Your task to perform on an android device: visit the assistant section in the google photos Image 0: 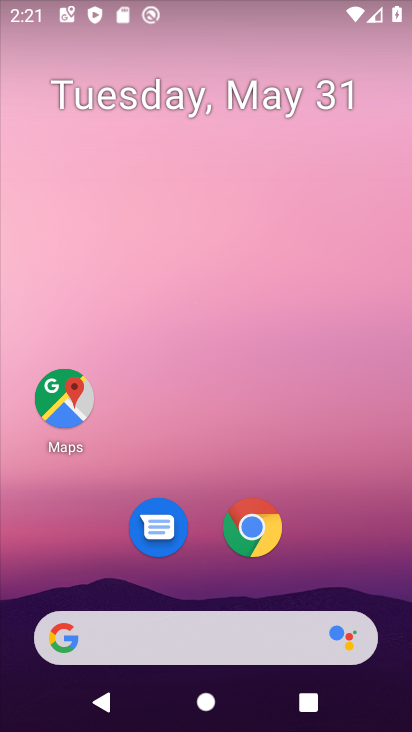
Step 0: drag from (397, 423) to (376, 12)
Your task to perform on an android device: visit the assistant section in the google photos Image 1: 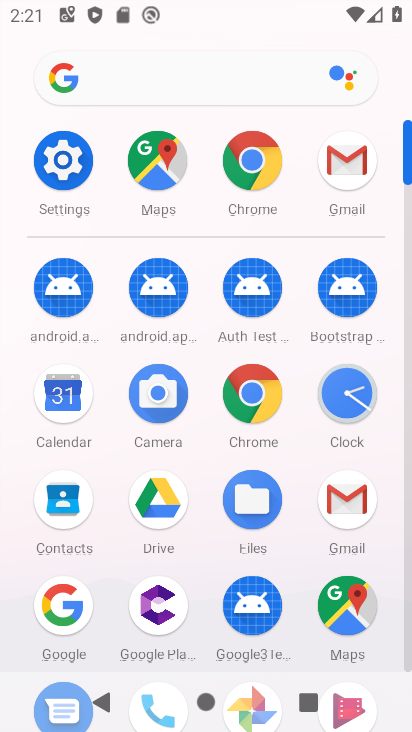
Step 1: drag from (389, 597) to (407, 348)
Your task to perform on an android device: visit the assistant section in the google photos Image 2: 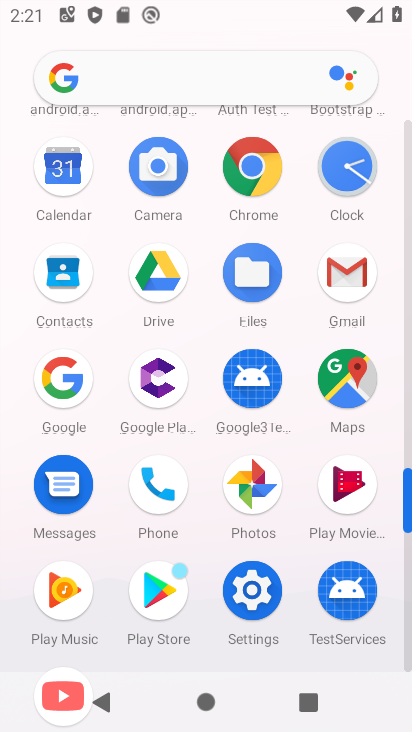
Step 2: drag from (389, 612) to (410, 262)
Your task to perform on an android device: visit the assistant section in the google photos Image 3: 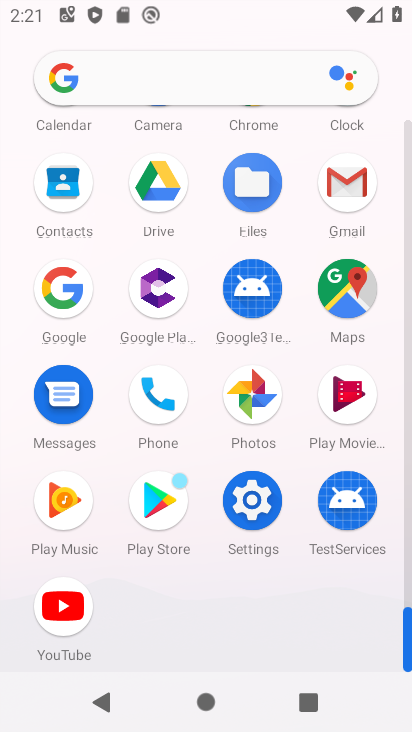
Step 3: click (256, 385)
Your task to perform on an android device: visit the assistant section in the google photos Image 4: 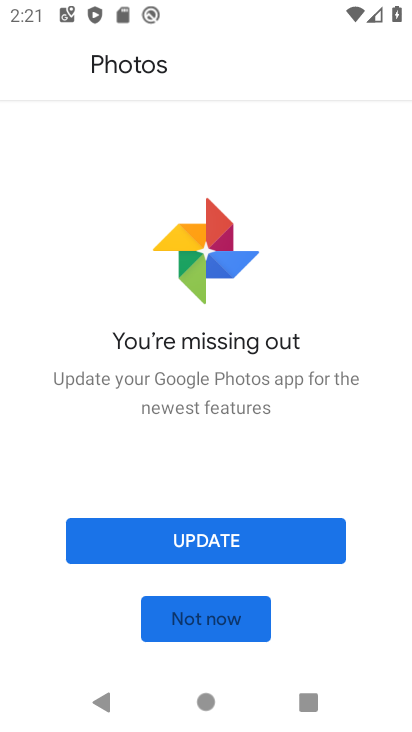
Step 4: click (241, 554)
Your task to perform on an android device: visit the assistant section in the google photos Image 5: 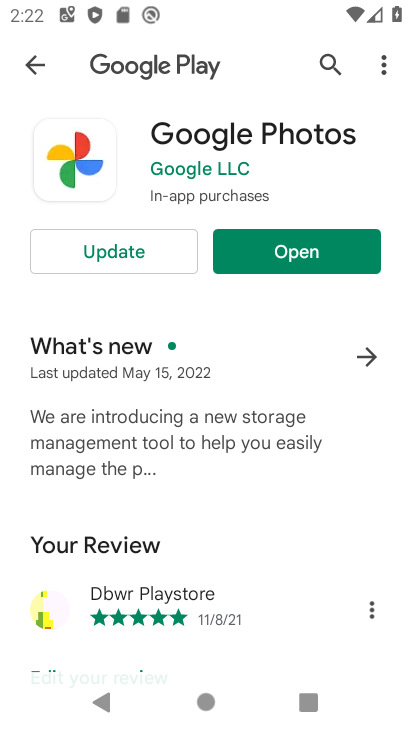
Step 5: click (136, 255)
Your task to perform on an android device: visit the assistant section in the google photos Image 6: 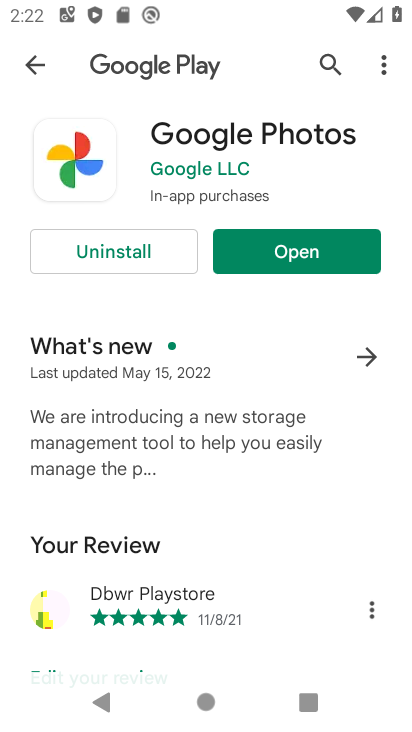
Step 6: click (272, 250)
Your task to perform on an android device: visit the assistant section in the google photos Image 7: 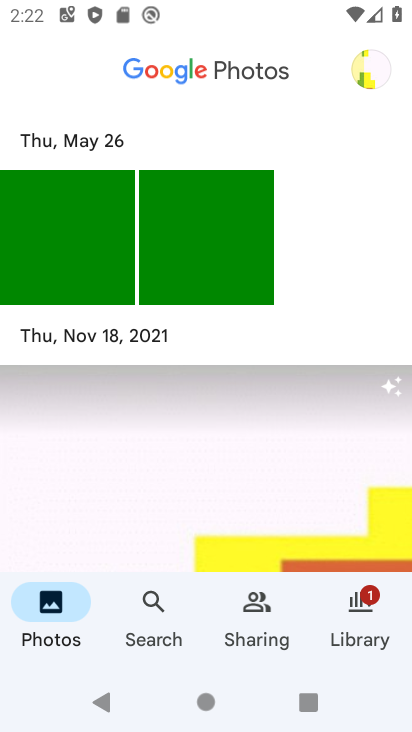
Step 7: task complete